Your task to perform on an android device: Search for vegetarian restaurants on Maps Image 0: 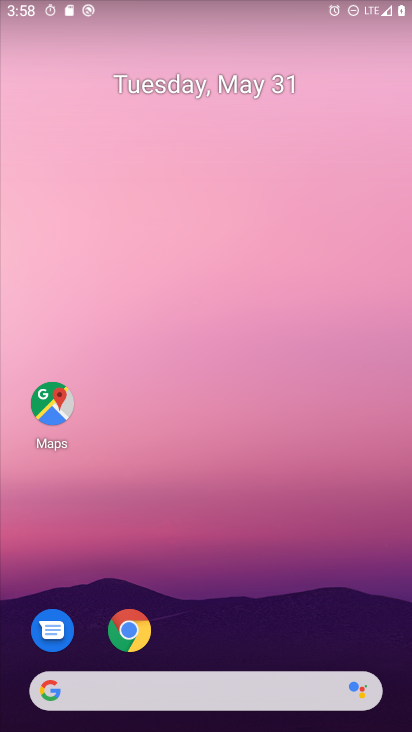
Step 0: drag from (211, 693) to (321, 7)
Your task to perform on an android device: Search for vegetarian restaurants on Maps Image 1: 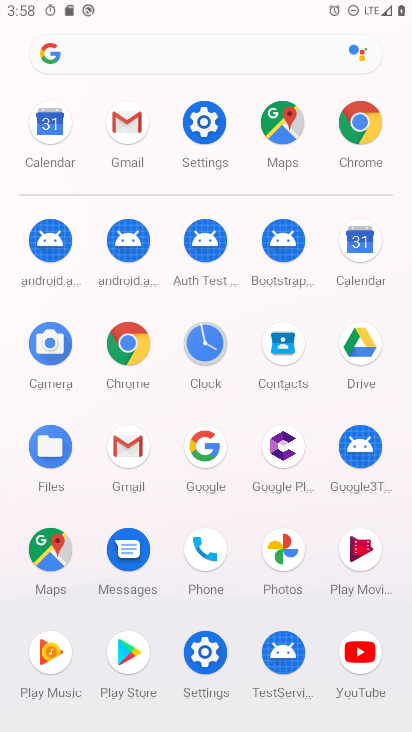
Step 1: click (53, 552)
Your task to perform on an android device: Search for vegetarian restaurants on Maps Image 2: 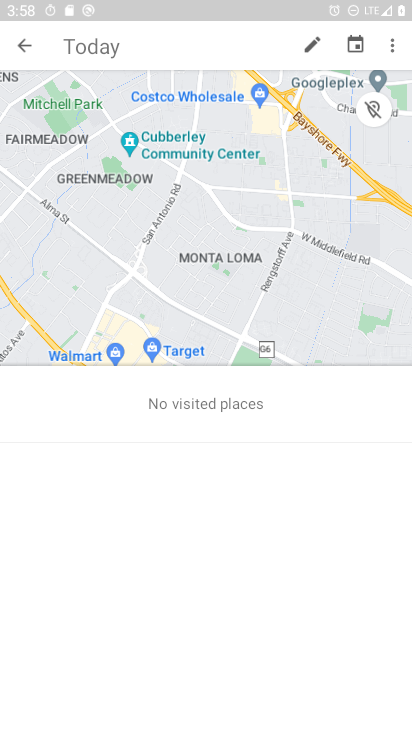
Step 2: press back button
Your task to perform on an android device: Search for vegetarian restaurants on Maps Image 3: 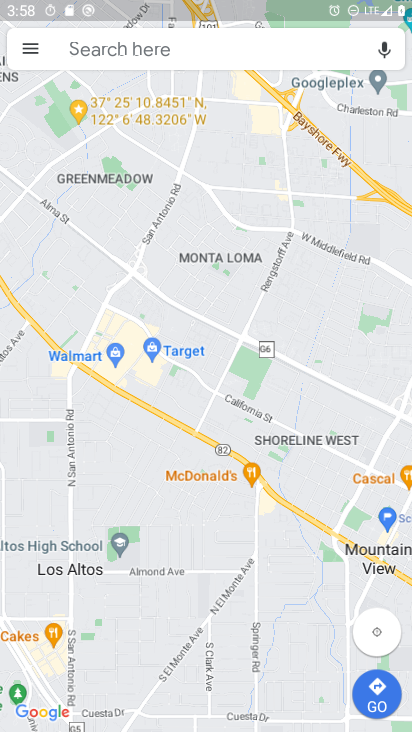
Step 3: click (252, 57)
Your task to perform on an android device: Search for vegetarian restaurants on Maps Image 4: 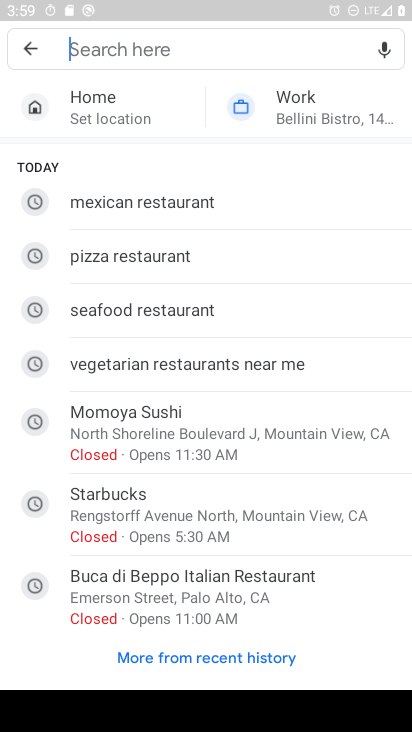
Step 4: type "vegetarian restaurant"
Your task to perform on an android device: Search for vegetarian restaurants on Maps Image 5: 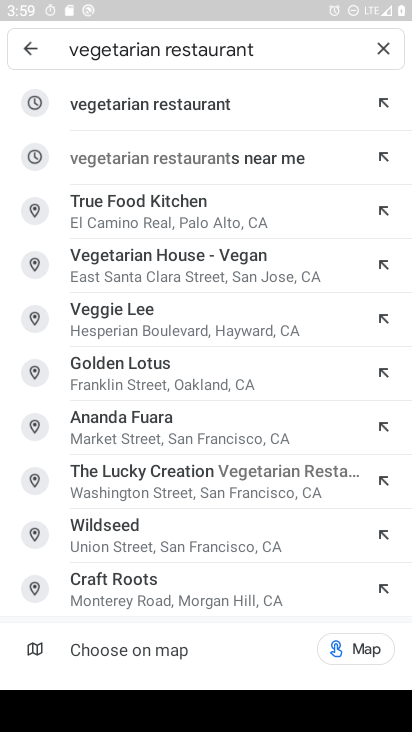
Step 5: click (115, 94)
Your task to perform on an android device: Search for vegetarian restaurants on Maps Image 6: 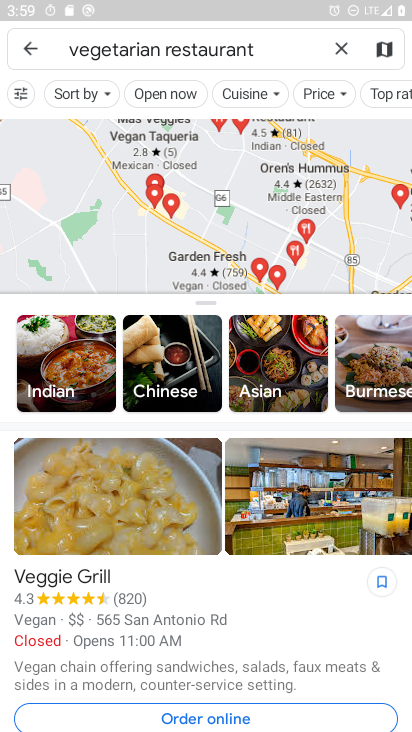
Step 6: task complete